Your task to perform on an android device: Show me popular games on the Play Store Image 0: 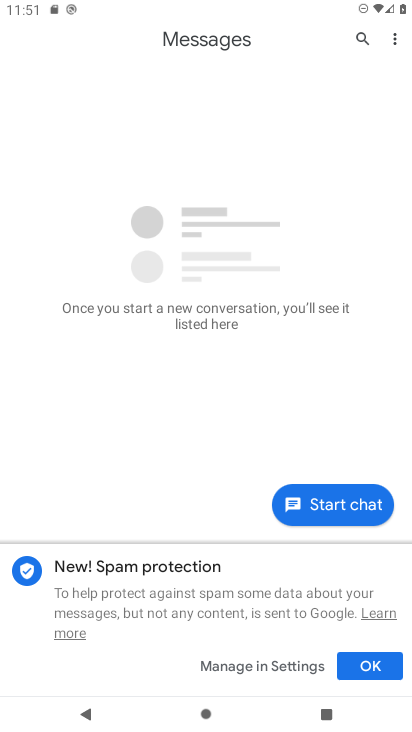
Step 0: press home button
Your task to perform on an android device: Show me popular games on the Play Store Image 1: 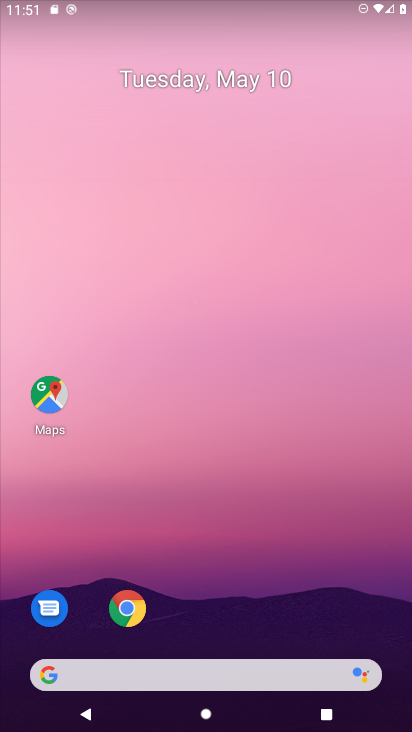
Step 1: drag from (260, 555) to (263, 0)
Your task to perform on an android device: Show me popular games on the Play Store Image 2: 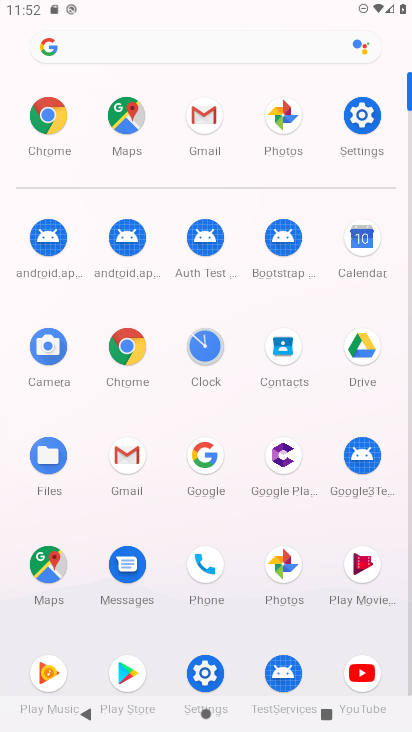
Step 2: click (131, 659)
Your task to perform on an android device: Show me popular games on the Play Store Image 3: 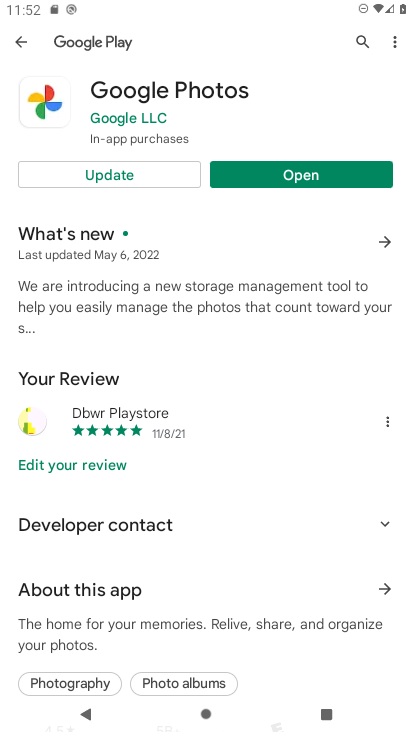
Step 3: click (21, 35)
Your task to perform on an android device: Show me popular games on the Play Store Image 4: 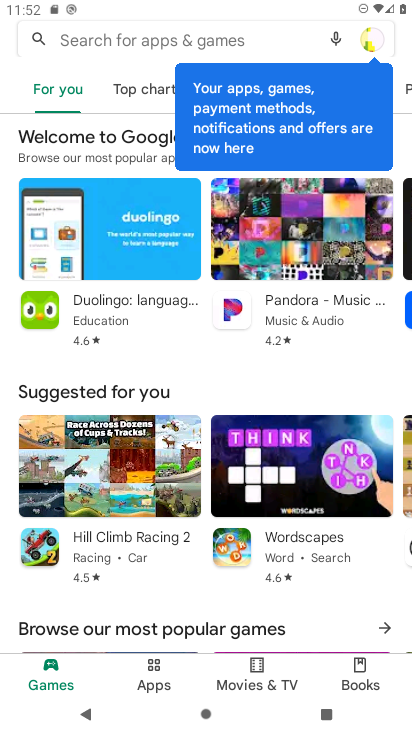
Step 4: drag from (239, 472) to (238, 284)
Your task to perform on an android device: Show me popular games on the Play Store Image 5: 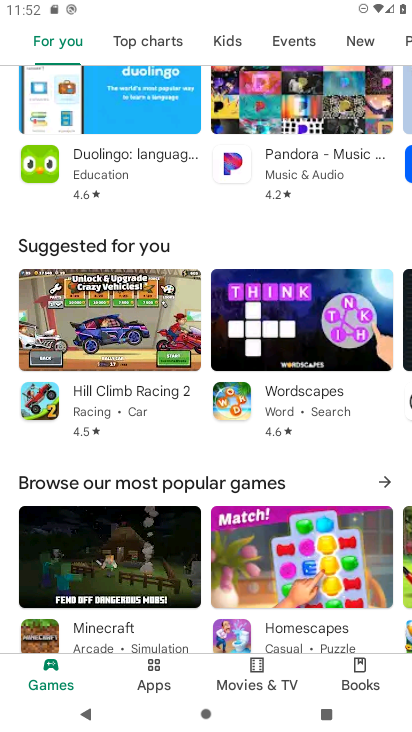
Step 5: click (382, 477)
Your task to perform on an android device: Show me popular games on the Play Store Image 6: 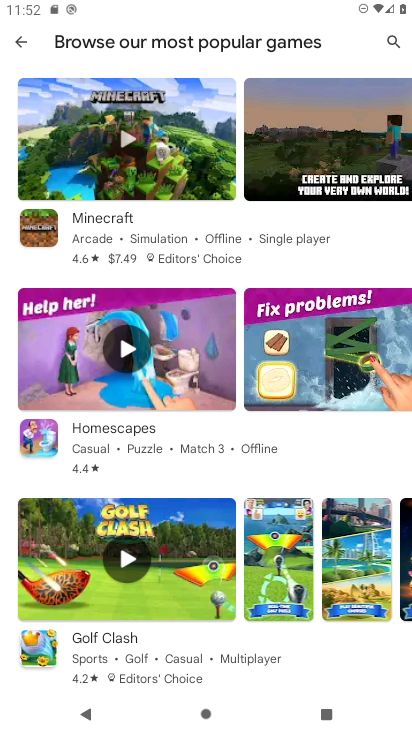
Step 6: task complete